Your task to perform on an android device: Check the weather Image 0: 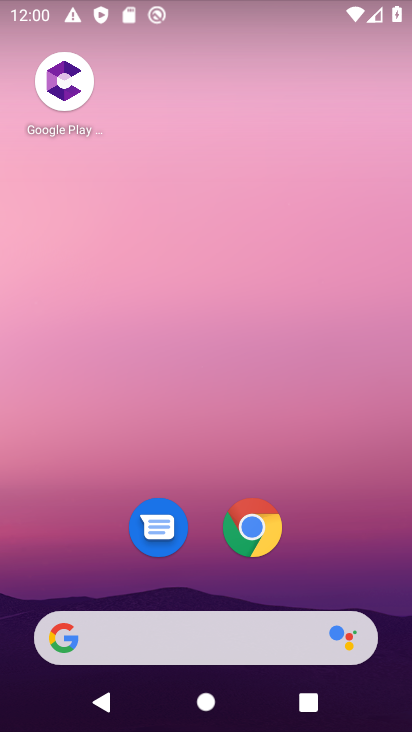
Step 0: click (231, 633)
Your task to perform on an android device: Check the weather Image 1: 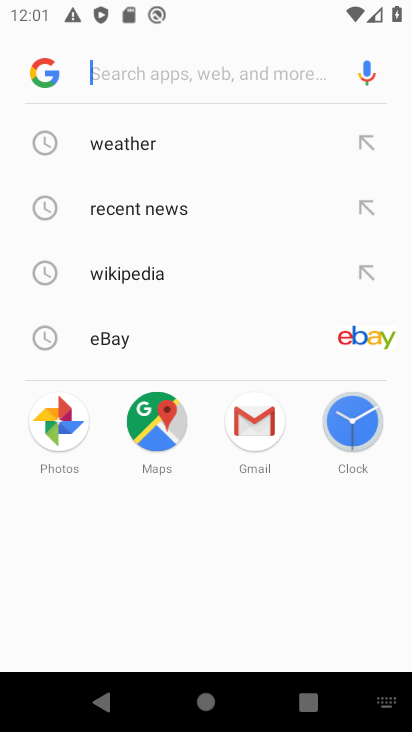
Step 1: type "Check the weather"
Your task to perform on an android device: Check the weather Image 2: 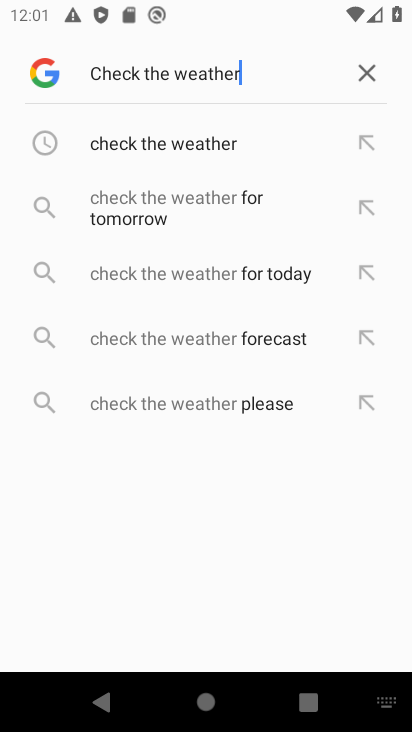
Step 2: press enter
Your task to perform on an android device: Check the weather Image 3: 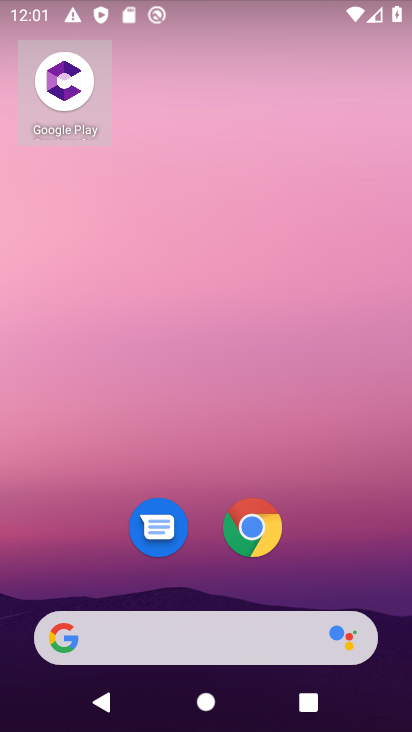
Step 3: drag from (246, 413) to (271, 64)
Your task to perform on an android device: Check the weather Image 4: 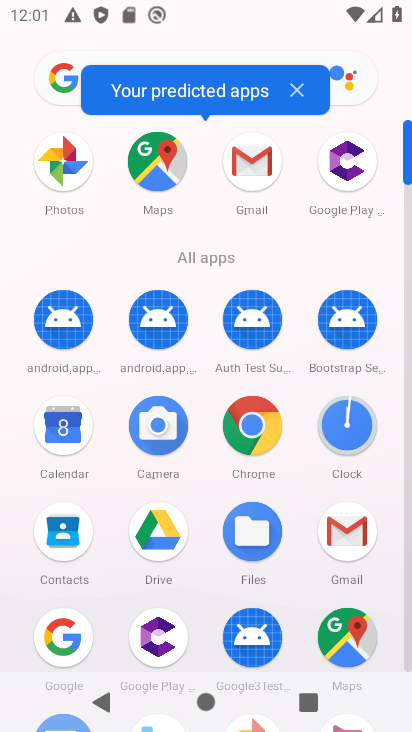
Step 4: click (99, 693)
Your task to perform on an android device: Check the weather Image 5: 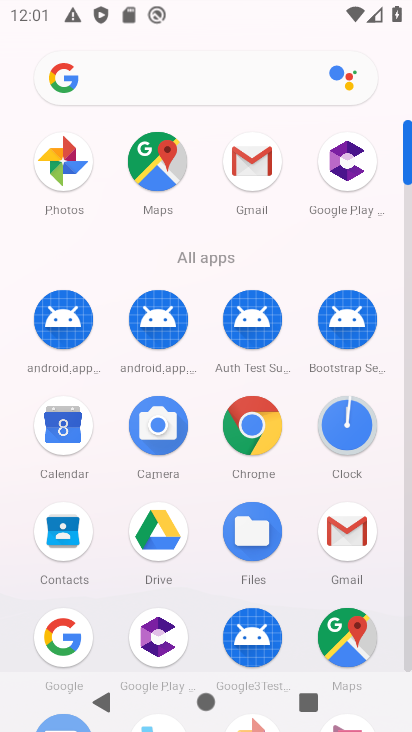
Step 5: click (258, 69)
Your task to perform on an android device: Check the weather Image 6: 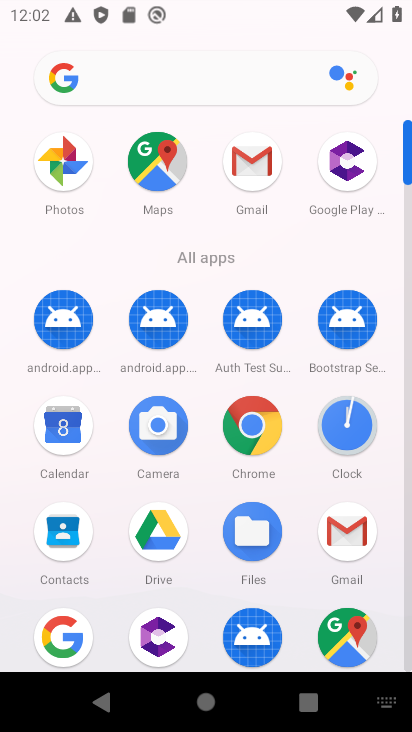
Step 6: type " Check the weather"
Your task to perform on an android device: Check the weather Image 7: 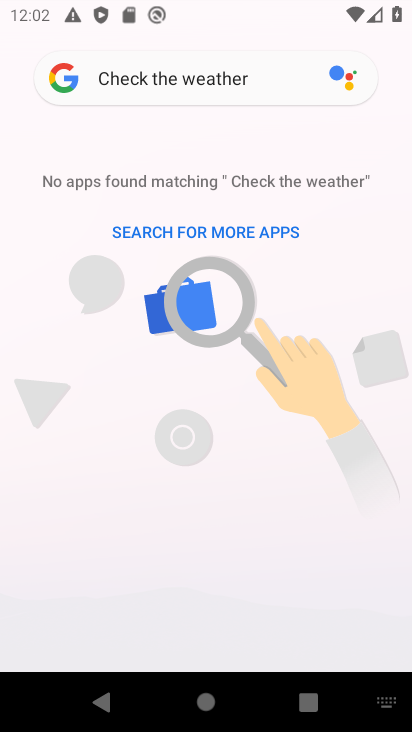
Step 7: press enter
Your task to perform on an android device: Check the weather Image 8: 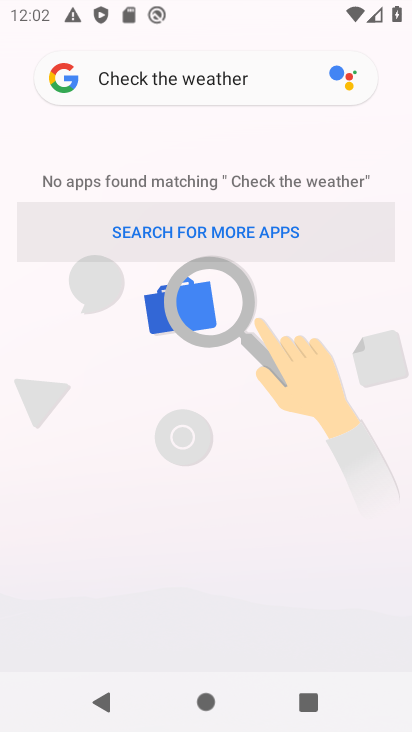
Step 8: press enter
Your task to perform on an android device: Check the weather Image 9: 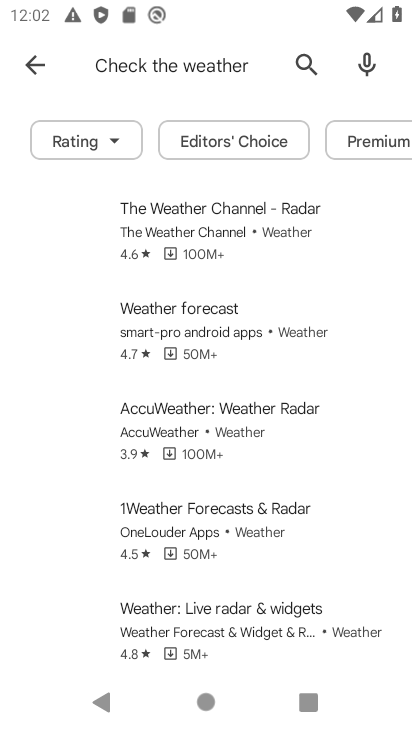
Step 9: task complete